Your task to perform on an android device: Go to display settings Image 0: 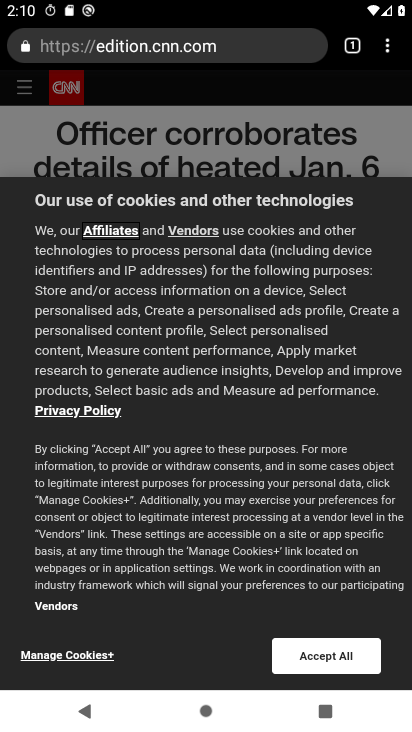
Step 0: press home button
Your task to perform on an android device: Go to display settings Image 1: 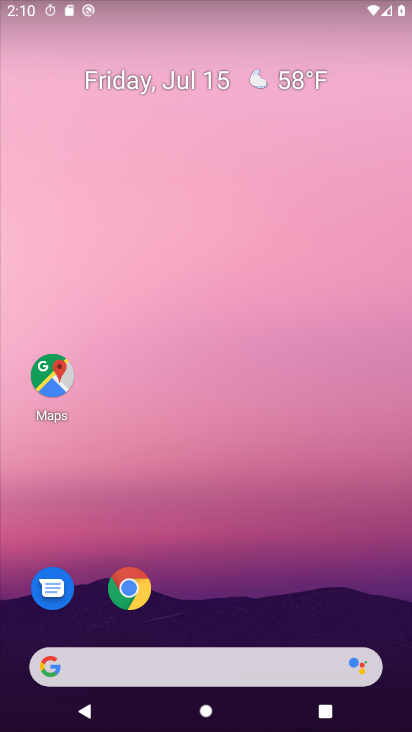
Step 1: drag from (260, 622) to (263, 4)
Your task to perform on an android device: Go to display settings Image 2: 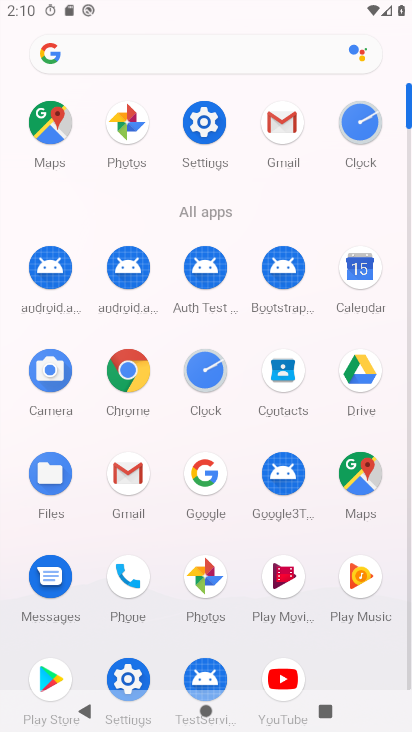
Step 2: click (207, 114)
Your task to perform on an android device: Go to display settings Image 3: 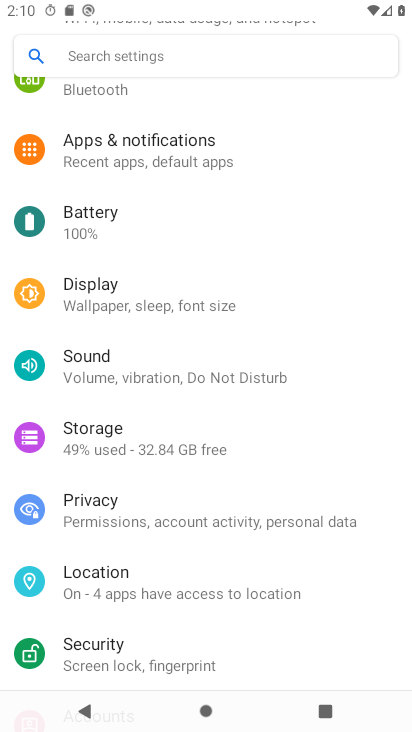
Step 3: click (144, 309)
Your task to perform on an android device: Go to display settings Image 4: 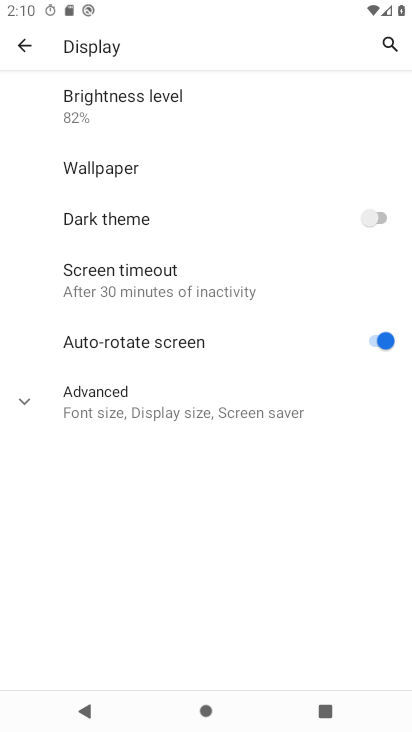
Step 4: click (118, 420)
Your task to perform on an android device: Go to display settings Image 5: 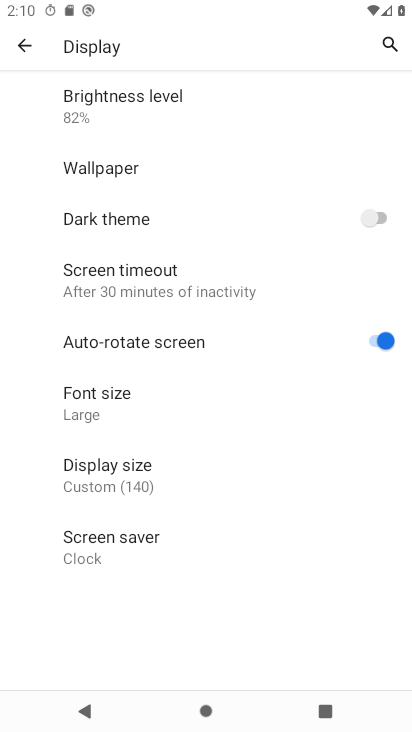
Step 5: task complete